Your task to perform on an android device: When is my next meeting? Image 0: 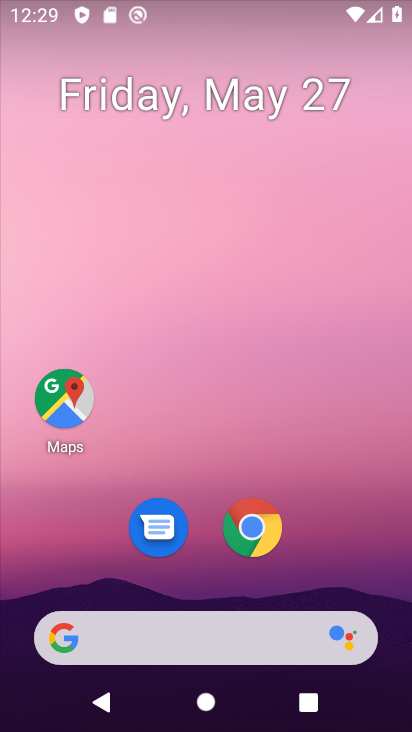
Step 0: drag from (168, 683) to (107, 166)
Your task to perform on an android device: When is my next meeting? Image 1: 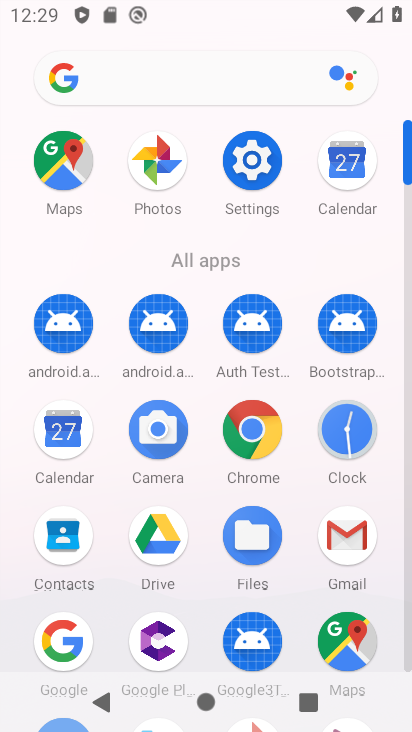
Step 1: click (44, 445)
Your task to perform on an android device: When is my next meeting? Image 2: 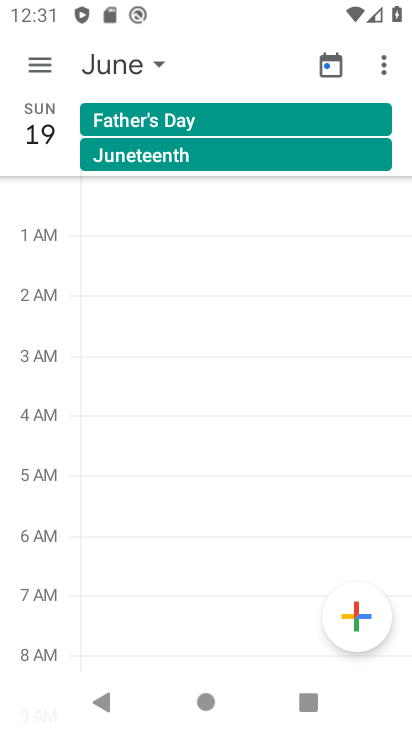
Step 2: task complete